Your task to perform on an android device: turn notification dots on Image 0: 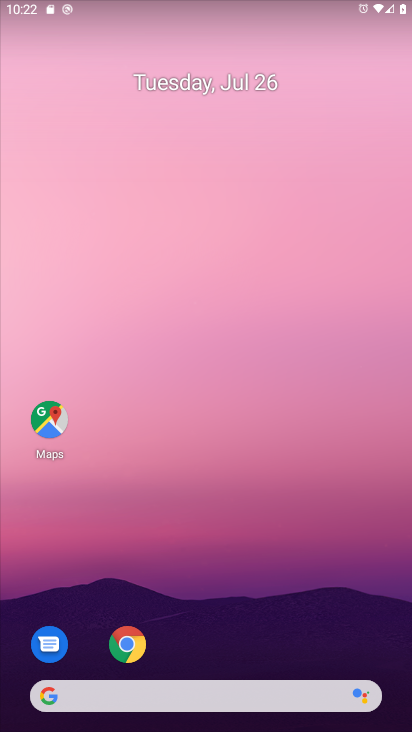
Step 0: drag from (201, 651) to (235, 20)
Your task to perform on an android device: turn notification dots on Image 1: 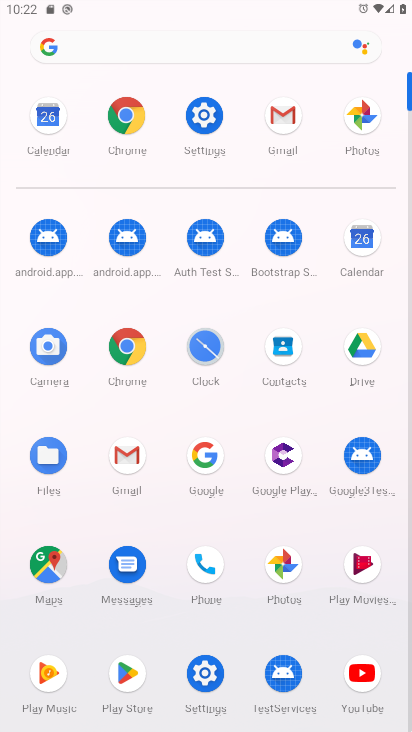
Step 1: click (194, 683)
Your task to perform on an android device: turn notification dots on Image 2: 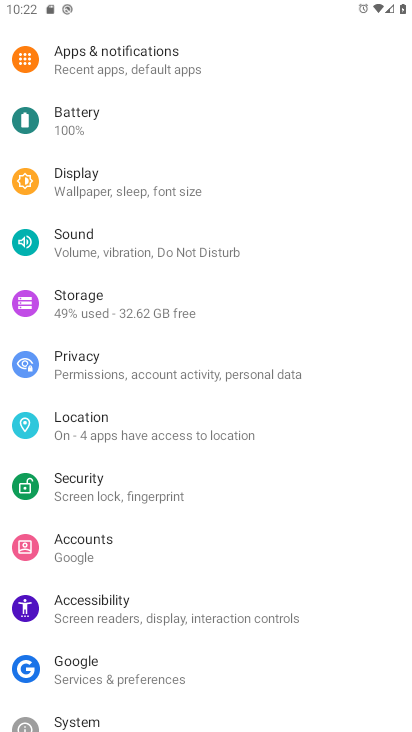
Step 2: click (140, 71)
Your task to perform on an android device: turn notification dots on Image 3: 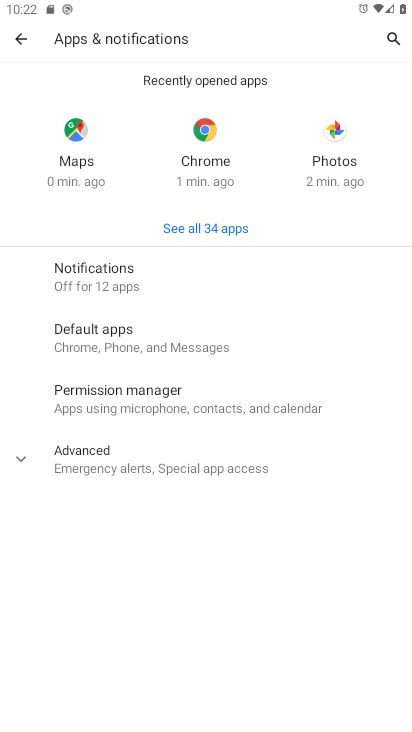
Step 3: click (116, 284)
Your task to perform on an android device: turn notification dots on Image 4: 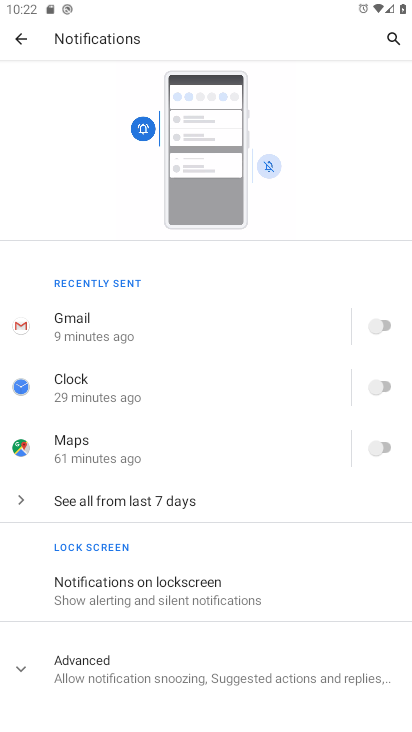
Step 4: click (155, 677)
Your task to perform on an android device: turn notification dots on Image 5: 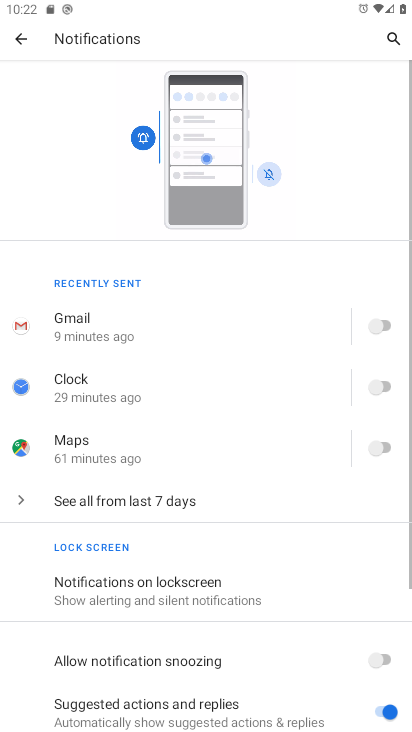
Step 5: task complete